Your task to perform on an android device: see tabs open on other devices in the chrome app Image 0: 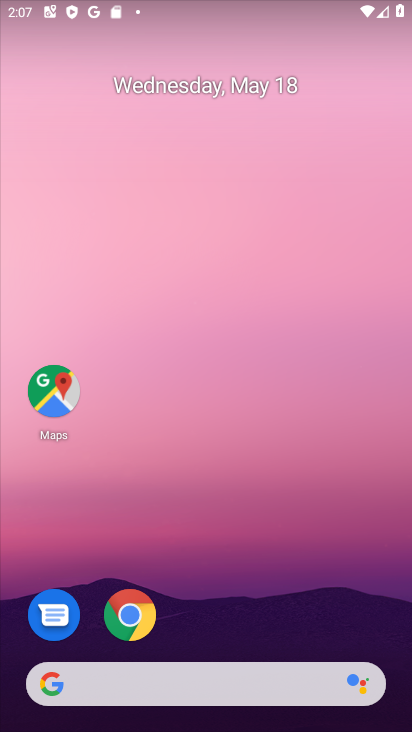
Step 0: click (141, 619)
Your task to perform on an android device: see tabs open on other devices in the chrome app Image 1: 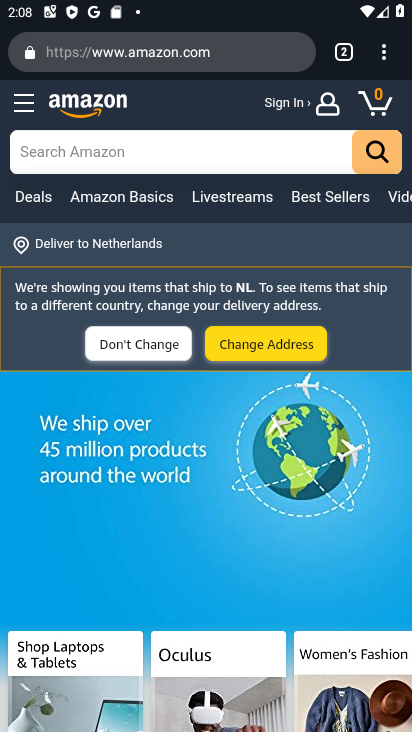
Step 1: click (386, 48)
Your task to perform on an android device: see tabs open on other devices in the chrome app Image 2: 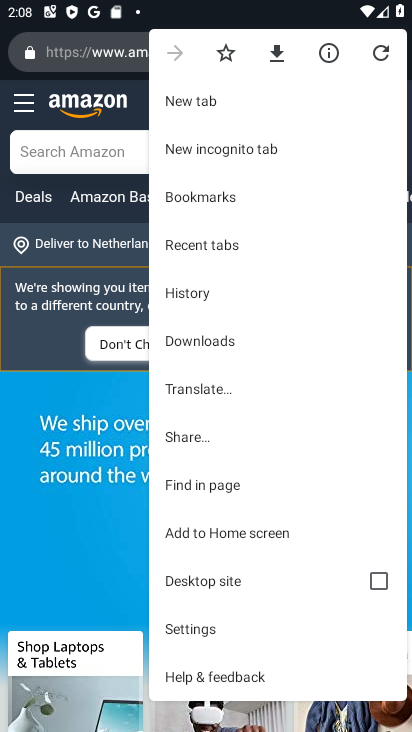
Step 2: click (280, 241)
Your task to perform on an android device: see tabs open on other devices in the chrome app Image 3: 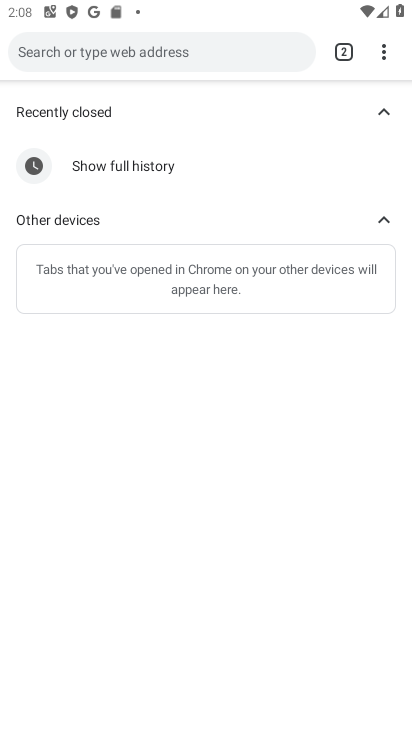
Step 3: task complete